Your task to perform on an android device: toggle data saver in the chrome app Image 0: 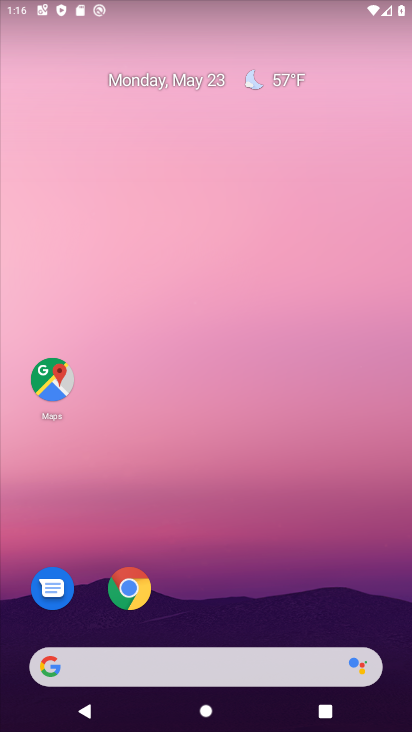
Step 0: drag from (198, 611) to (147, 149)
Your task to perform on an android device: toggle data saver in the chrome app Image 1: 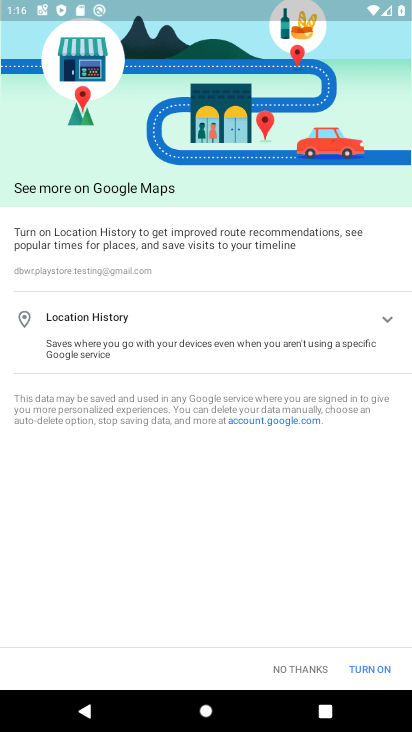
Step 1: press home button
Your task to perform on an android device: toggle data saver in the chrome app Image 2: 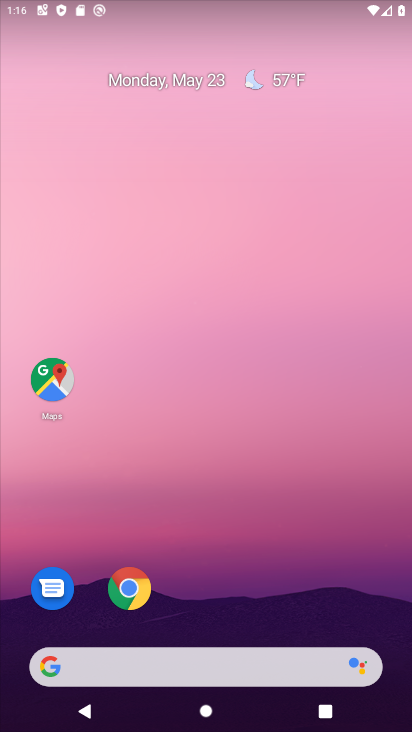
Step 2: click (128, 585)
Your task to perform on an android device: toggle data saver in the chrome app Image 3: 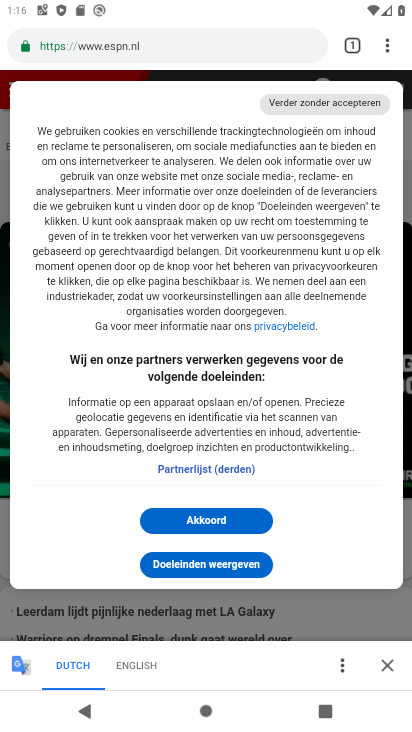
Step 3: click (388, 55)
Your task to perform on an android device: toggle data saver in the chrome app Image 4: 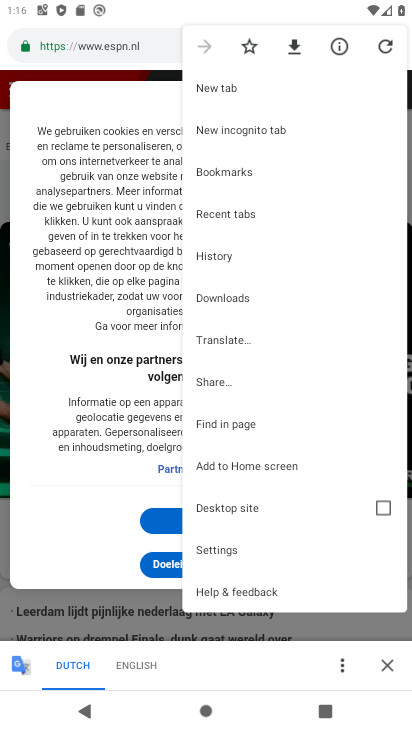
Step 4: click (213, 549)
Your task to perform on an android device: toggle data saver in the chrome app Image 5: 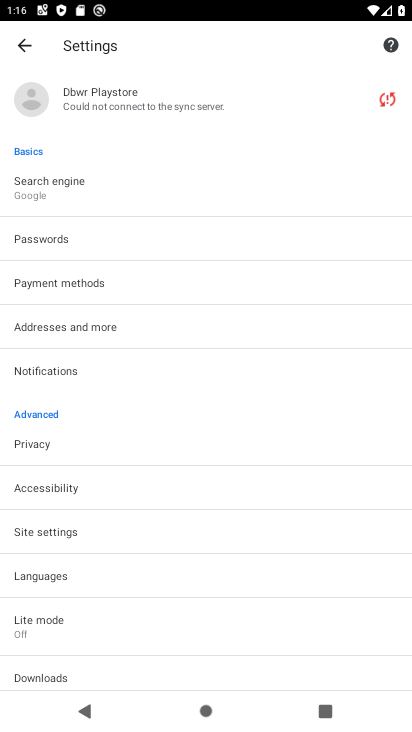
Step 5: click (161, 635)
Your task to perform on an android device: toggle data saver in the chrome app Image 6: 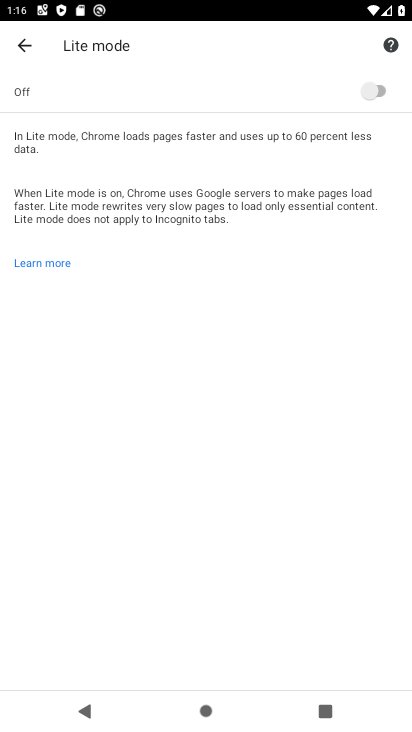
Step 6: click (376, 95)
Your task to perform on an android device: toggle data saver in the chrome app Image 7: 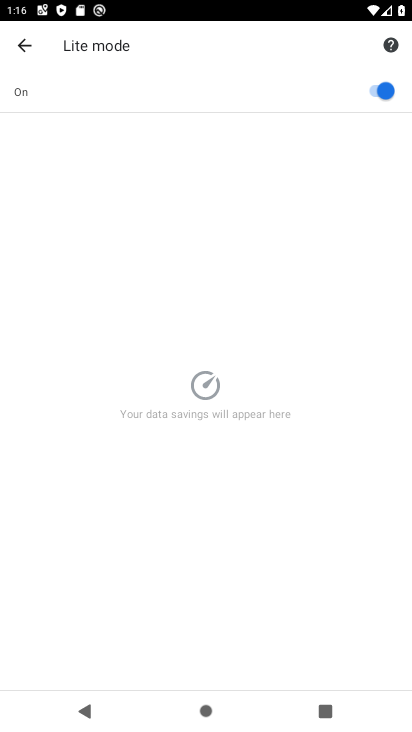
Step 7: task complete